Your task to perform on an android device: Turn on the flashlight Image 0: 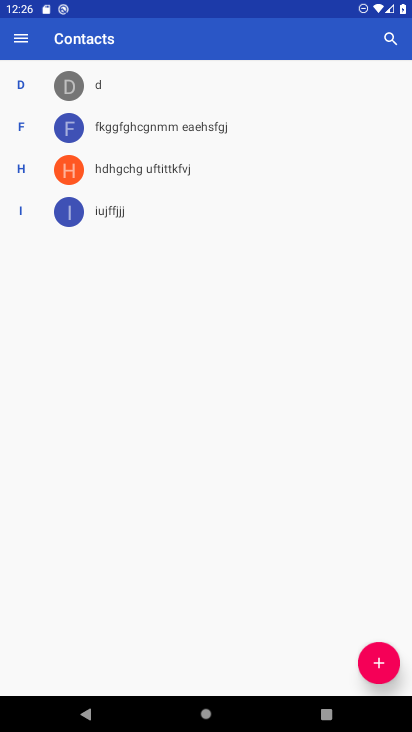
Step 0: press home button
Your task to perform on an android device: Turn on the flashlight Image 1: 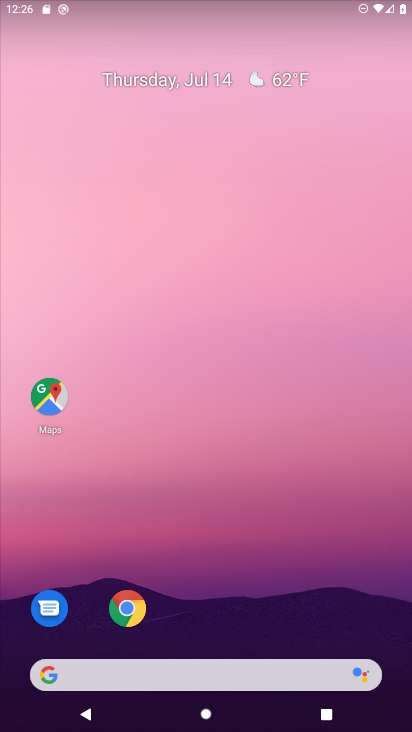
Step 1: drag from (248, 722) to (257, 170)
Your task to perform on an android device: Turn on the flashlight Image 2: 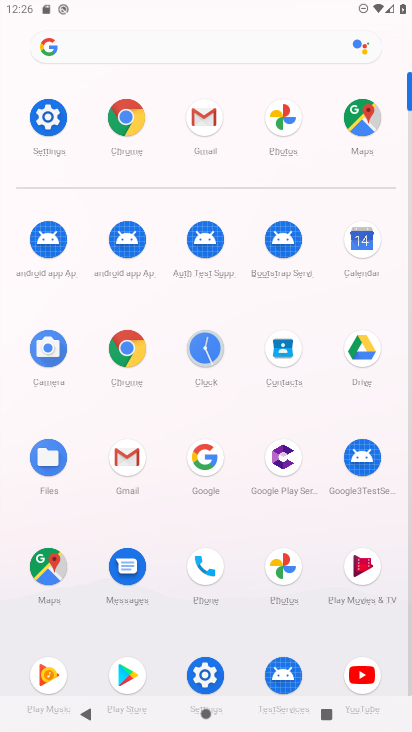
Step 2: click (53, 116)
Your task to perform on an android device: Turn on the flashlight Image 3: 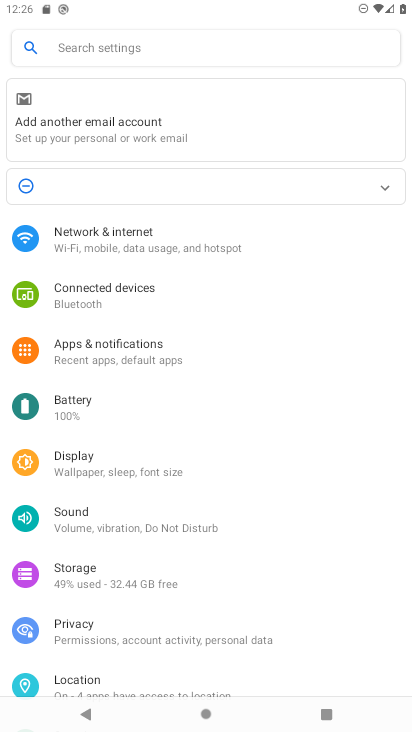
Step 3: task complete